Your task to perform on an android device: Turn on the flashlight Image 0: 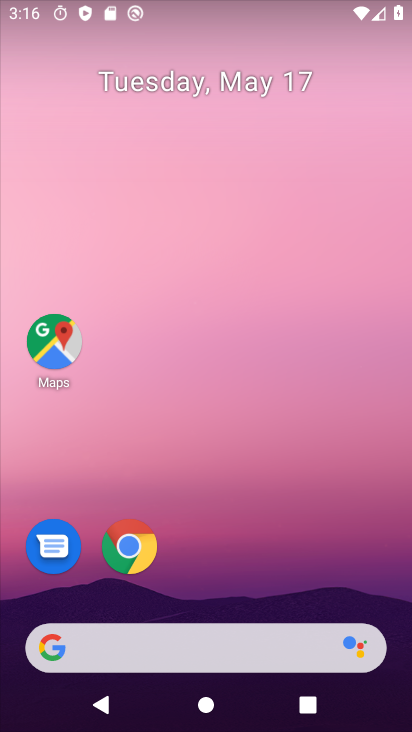
Step 0: drag from (250, 616) to (256, 80)
Your task to perform on an android device: Turn on the flashlight Image 1: 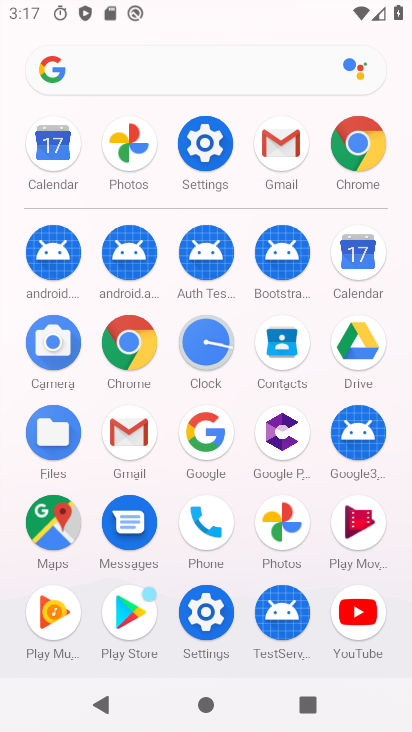
Step 1: task complete